Your task to perform on an android device: Search for pizza restaurants on Maps Image 0: 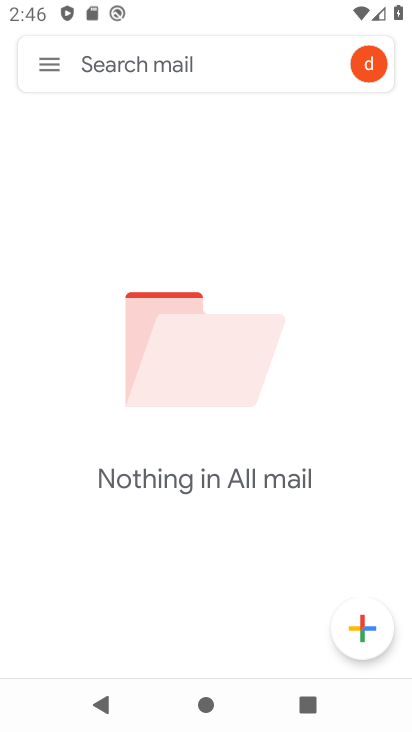
Step 0: press home button
Your task to perform on an android device: Search for pizza restaurants on Maps Image 1: 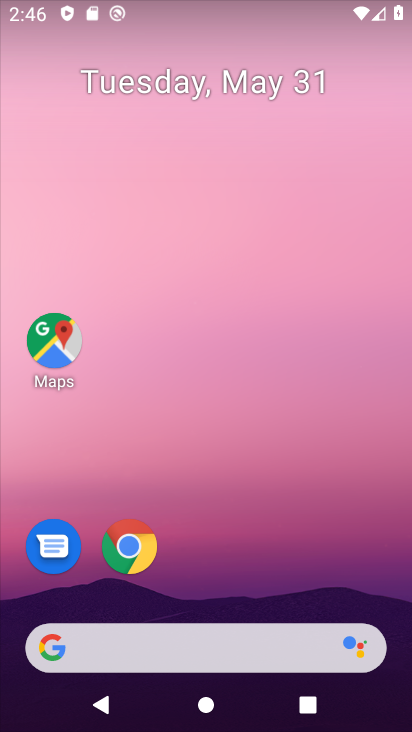
Step 1: click (46, 333)
Your task to perform on an android device: Search for pizza restaurants on Maps Image 2: 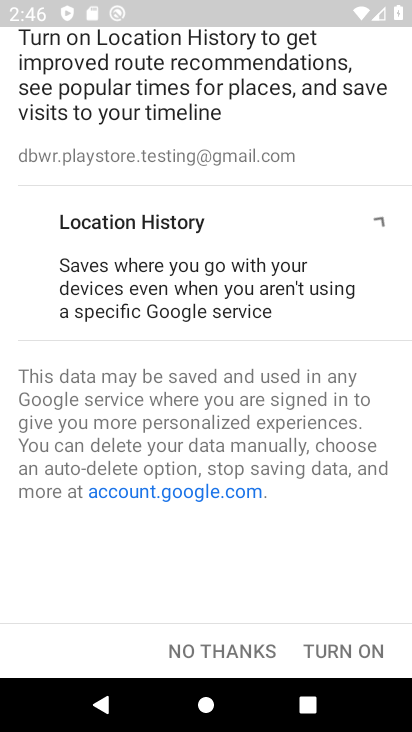
Step 2: click (215, 53)
Your task to perform on an android device: Search for pizza restaurants on Maps Image 3: 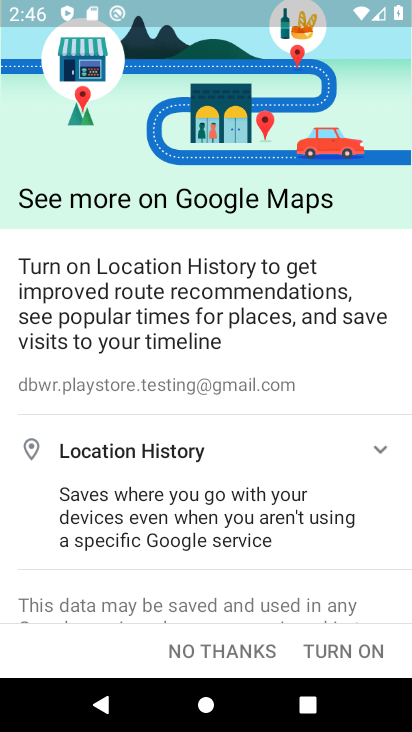
Step 3: click (259, 644)
Your task to perform on an android device: Search for pizza restaurants on Maps Image 4: 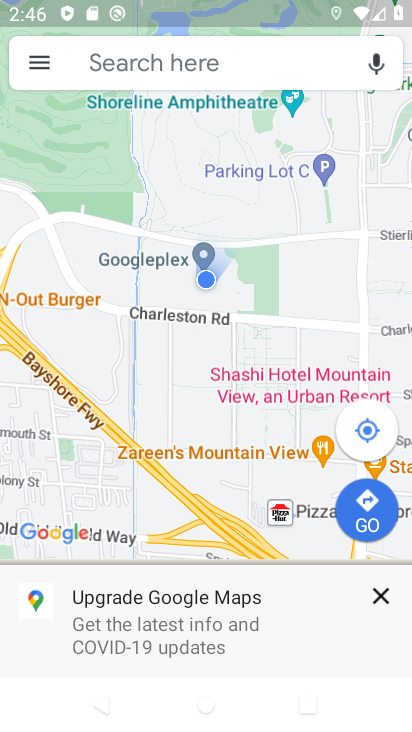
Step 4: click (211, 55)
Your task to perform on an android device: Search for pizza restaurants on Maps Image 5: 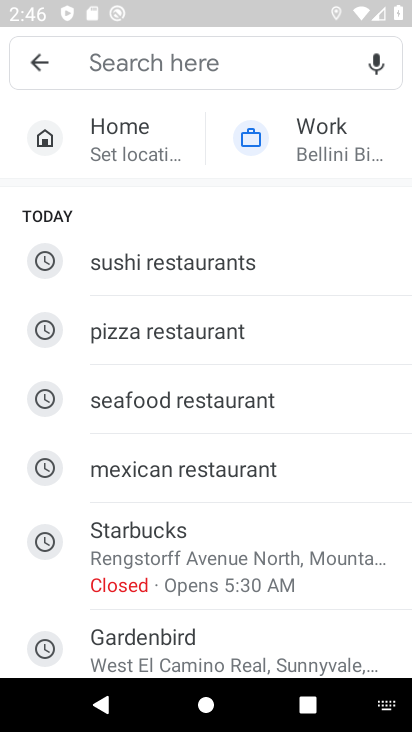
Step 5: click (231, 318)
Your task to perform on an android device: Search for pizza restaurants on Maps Image 6: 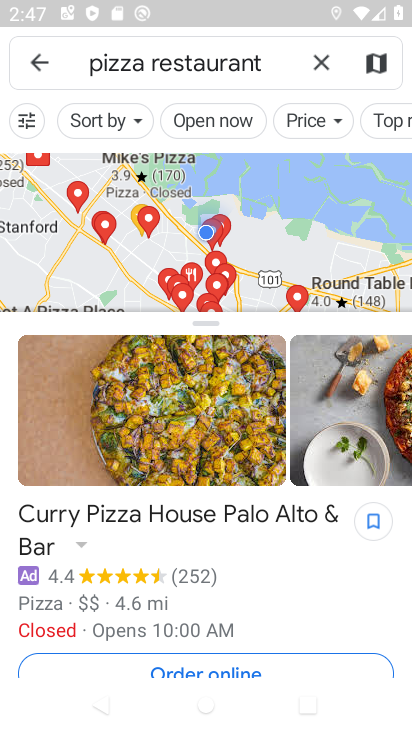
Step 6: task complete